Your task to perform on an android device: find which apps use the phone's location Image 0: 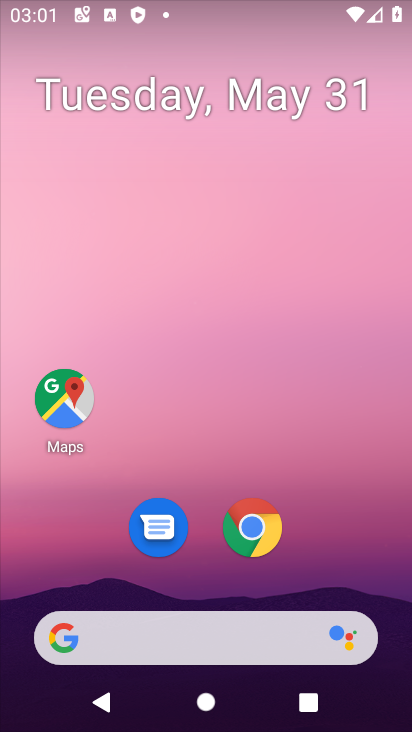
Step 0: drag from (400, 612) to (321, 44)
Your task to perform on an android device: find which apps use the phone's location Image 1: 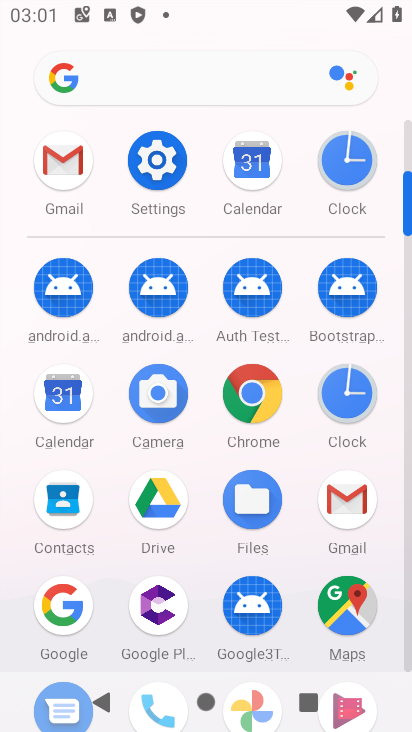
Step 1: click (408, 652)
Your task to perform on an android device: find which apps use the phone's location Image 2: 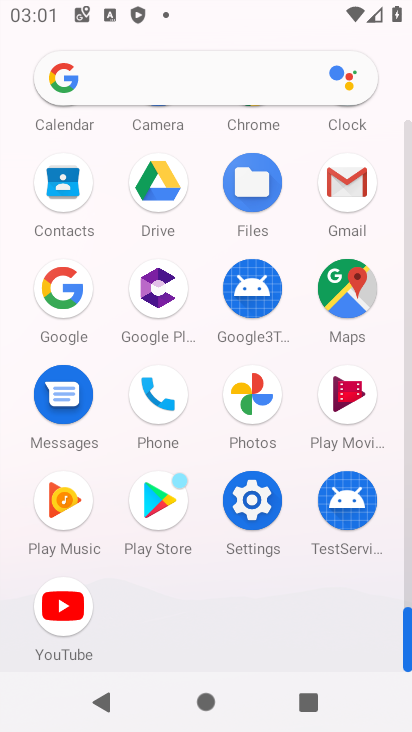
Step 2: click (254, 499)
Your task to perform on an android device: find which apps use the phone's location Image 3: 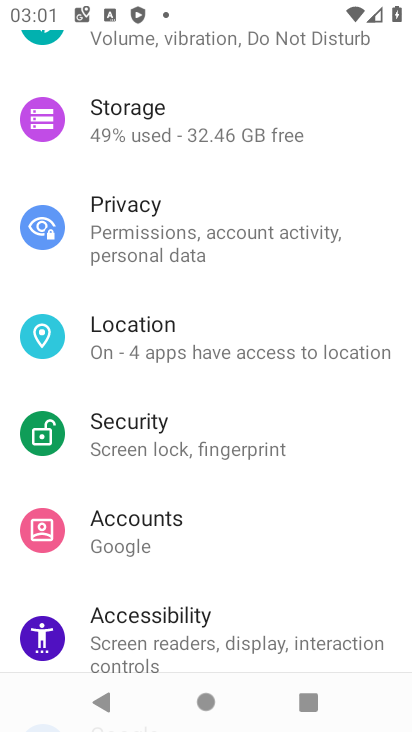
Step 3: click (154, 341)
Your task to perform on an android device: find which apps use the phone's location Image 4: 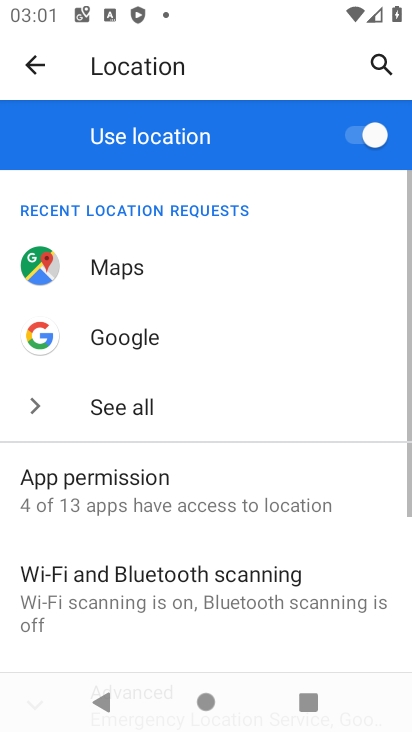
Step 4: click (94, 487)
Your task to perform on an android device: find which apps use the phone's location Image 5: 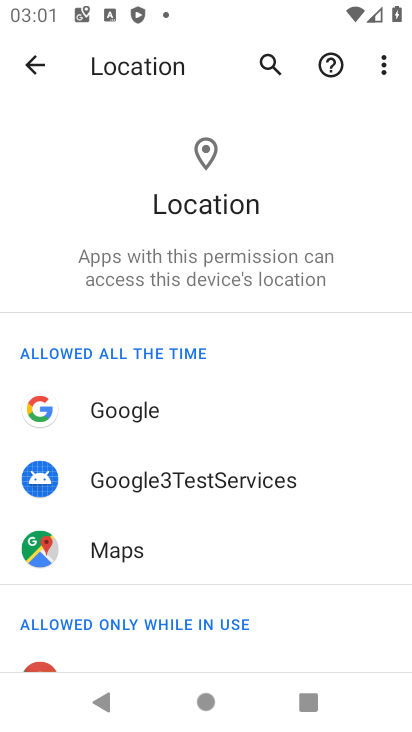
Step 5: drag from (263, 610) to (297, 185)
Your task to perform on an android device: find which apps use the phone's location Image 6: 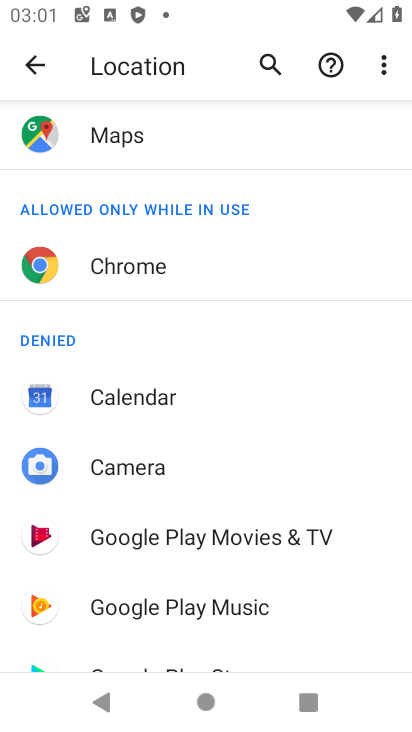
Step 6: drag from (303, 574) to (294, 164)
Your task to perform on an android device: find which apps use the phone's location Image 7: 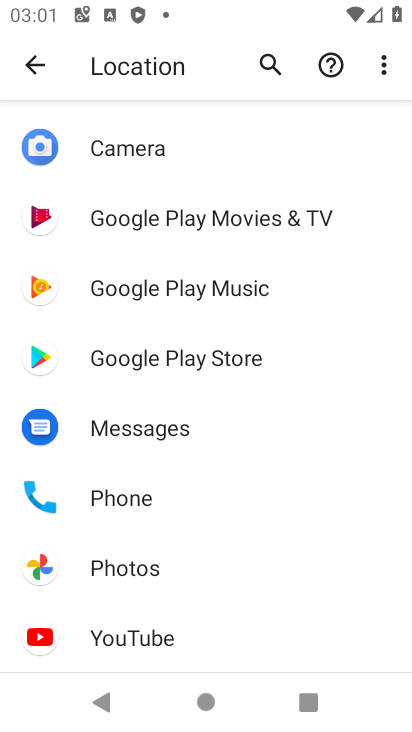
Step 7: click (118, 570)
Your task to perform on an android device: find which apps use the phone's location Image 8: 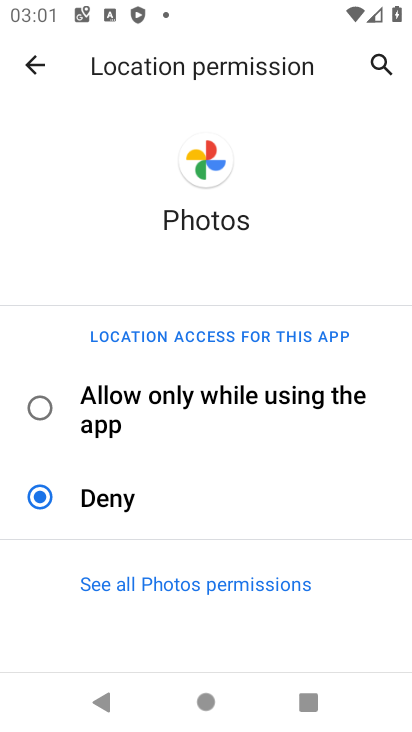
Step 8: task complete